Your task to perform on an android device: Go to eBay Image 0: 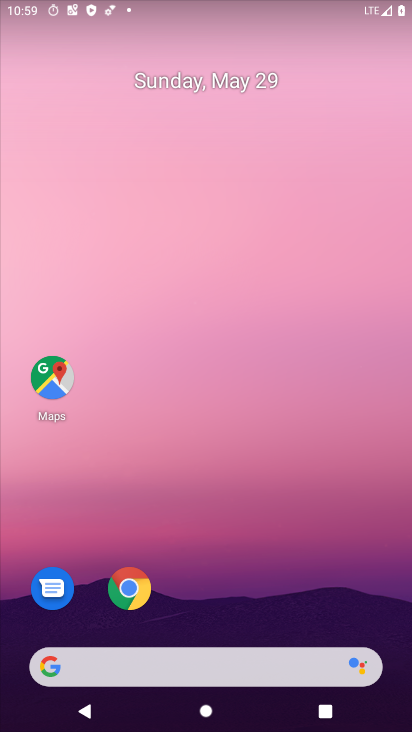
Step 0: drag from (293, 585) to (314, 120)
Your task to perform on an android device: Go to eBay Image 1: 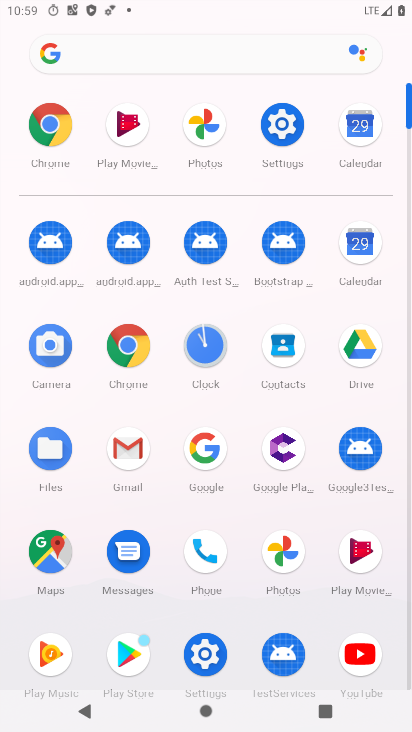
Step 1: click (135, 362)
Your task to perform on an android device: Go to eBay Image 2: 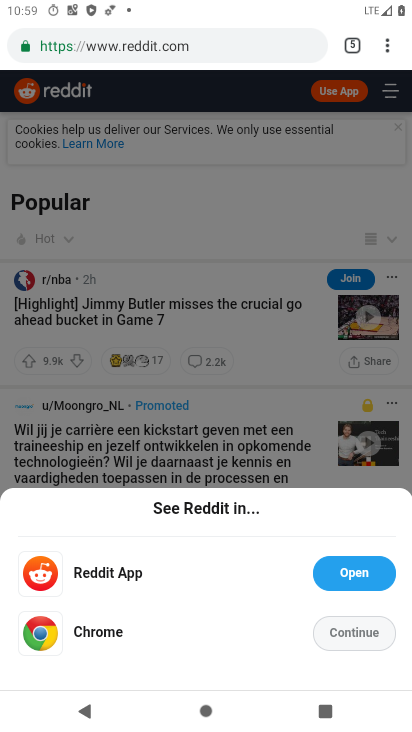
Step 2: click (302, 383)
Your task to perform on an android device: Go to eBay Image 3: 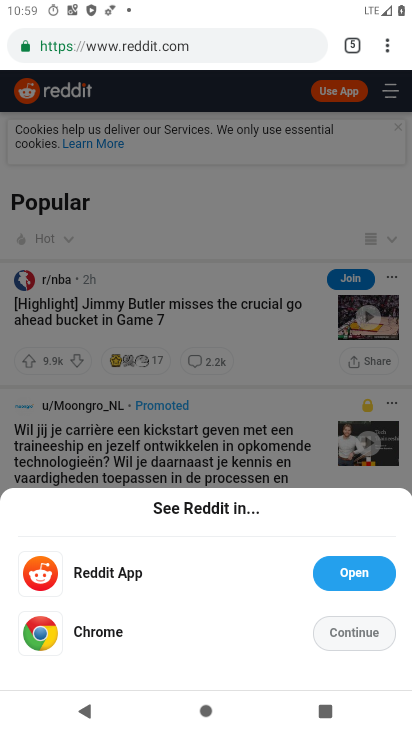
Step 3: click (354, 50)
Your task to perform on an android device: Go to eBay Image 4: 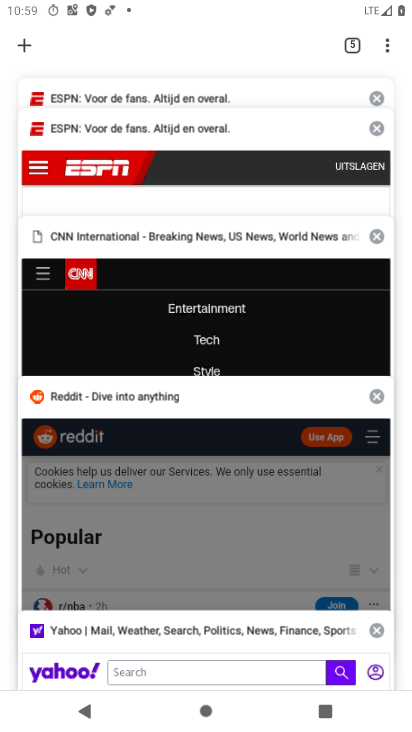
Step 4: click (30, 49)
Your task to perform on an android device: Go to eBay Image 5: 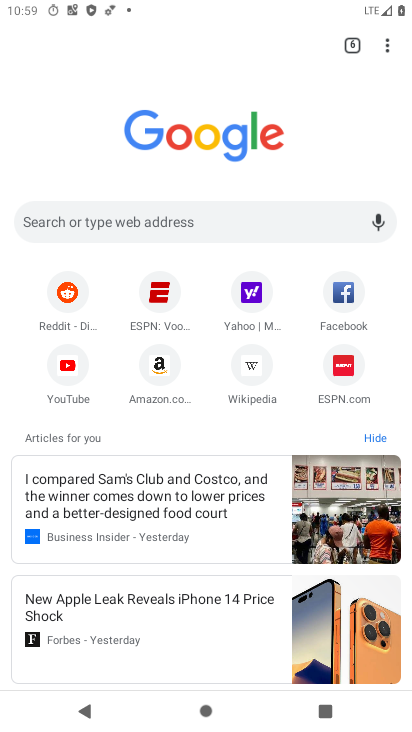
Step 5: click (172, 220)
Your task to perform on an android device: Go to eBay Image 6: 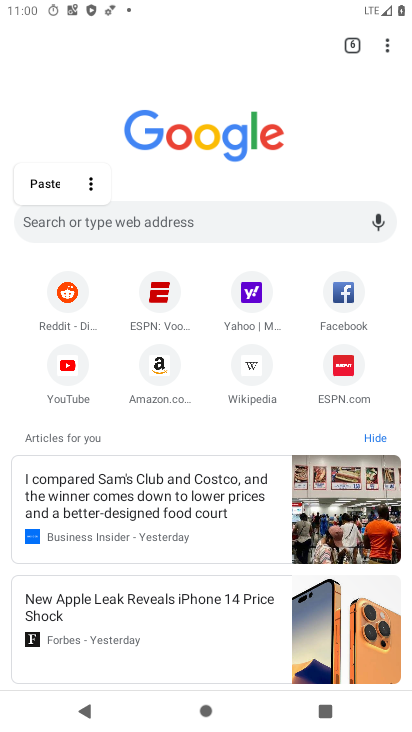
Step 6: type "eBay"
Your task to perform on an android device: Go to eBay Image 7: 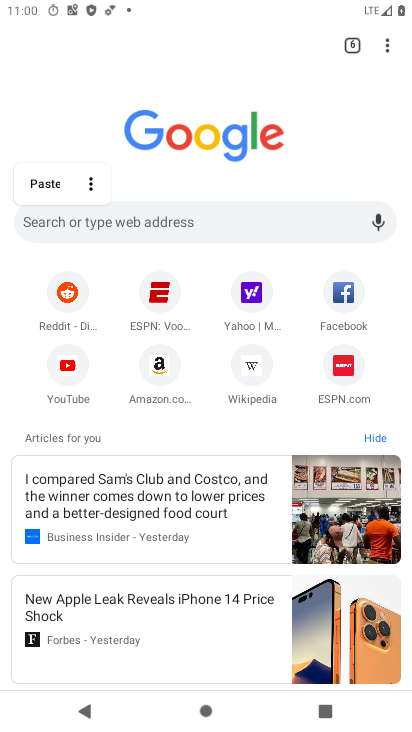
Step 7: click (111, 223)
Your task to perform on an android device: Go to eBay Image 8: 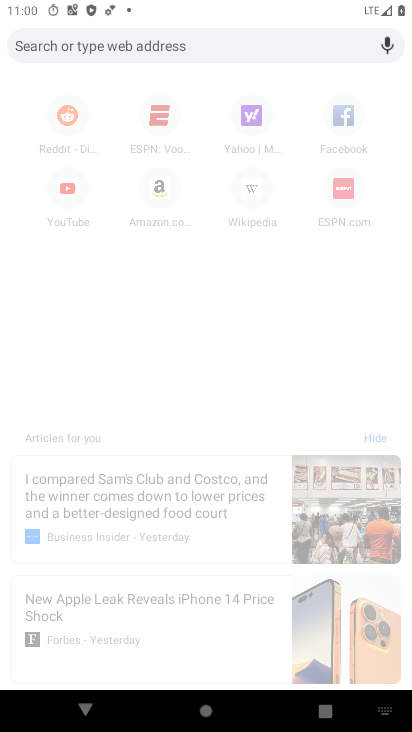
Step 8: type "eBay"
Your task to perform on an android device: Go to eBay Image 9: 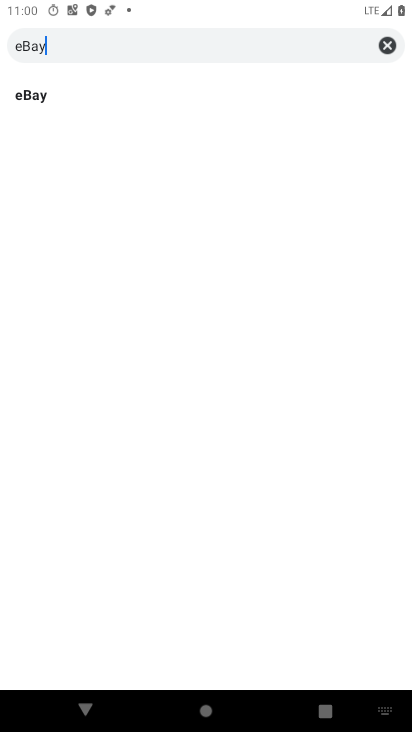
Step 9: type ""
Your task to perform on an android device: Go to eBay Image 10: 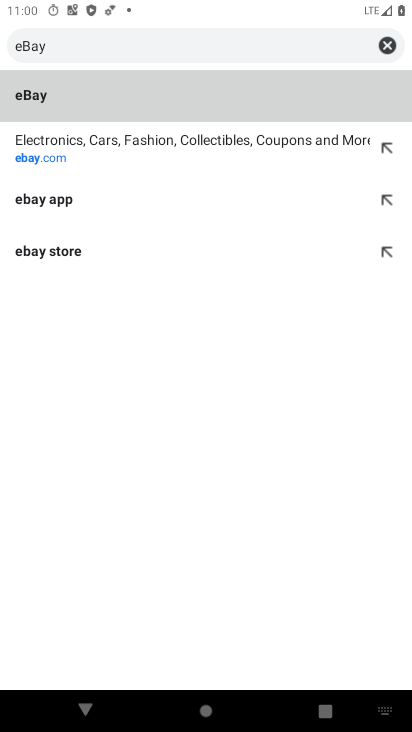
Step 10: click (166, 150)
Your task to perform on an android device: Go to eBay Image 11: 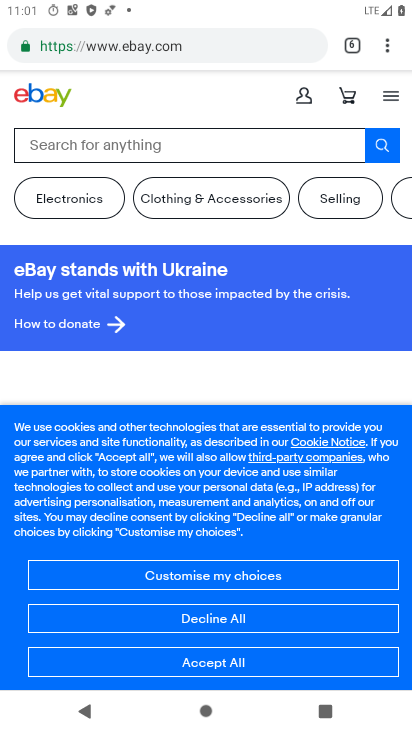
Step 11: task complete